Your task to perform on an android device: Open Chrome and go to settings Image 0: 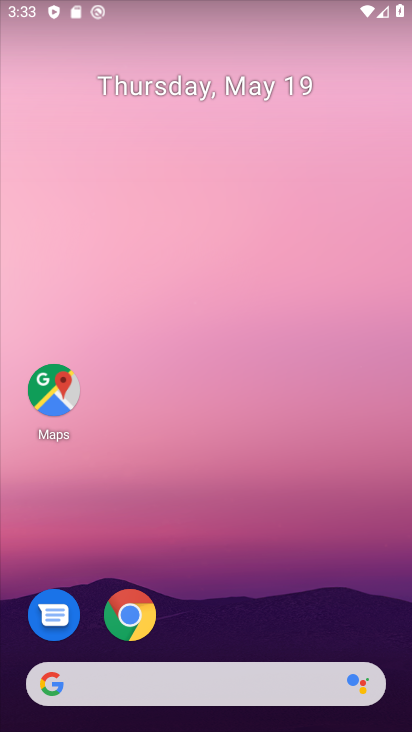
Step 0: click (139, 624)
Your task to perform on an android device: Open Chrome and go to settings Image 1: 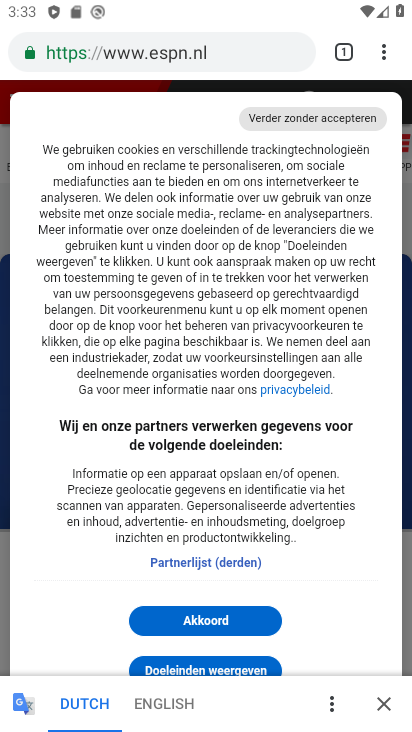
Step 1: click (385, 53)
Your task to perform on an android device: Open Chrome and go to settings Image 2: 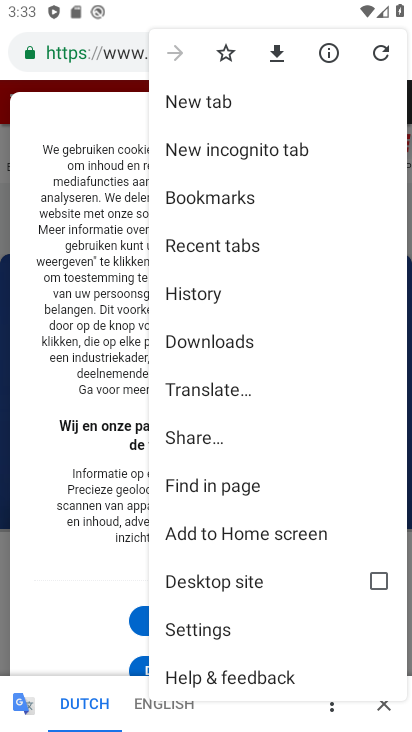
Step 2: click (214, 631)
Your task to perform on an android device: Open Chrome and go to settings Image 3: 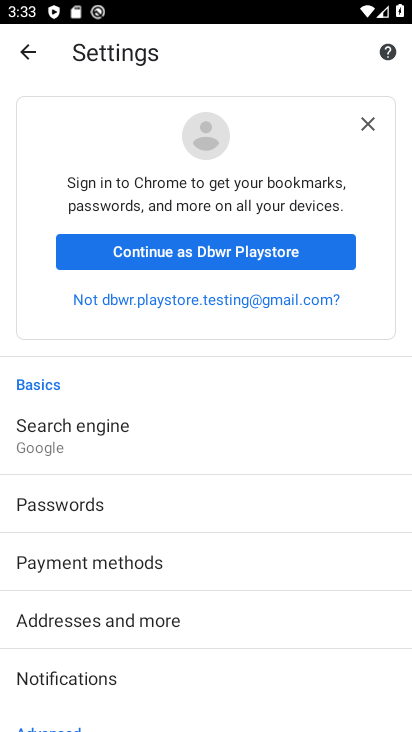
Step 3: task complete